Your task to perform on an android device: Empty the shopping cart on amazon.com. Add logitech g933 to the cart on amazon.com, then select checkout. Image 0: 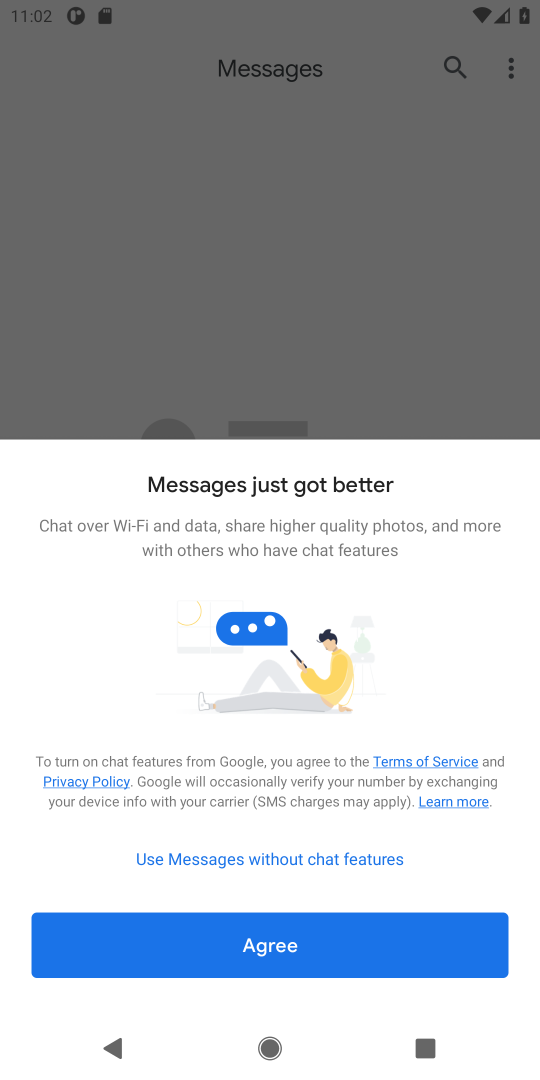
Step 0: press home button
Your task to perform on an android device: Empty the shopping cart on amazon.com. Add logitech g933 to the cart on amazon.com, then select checkout. Image 1: 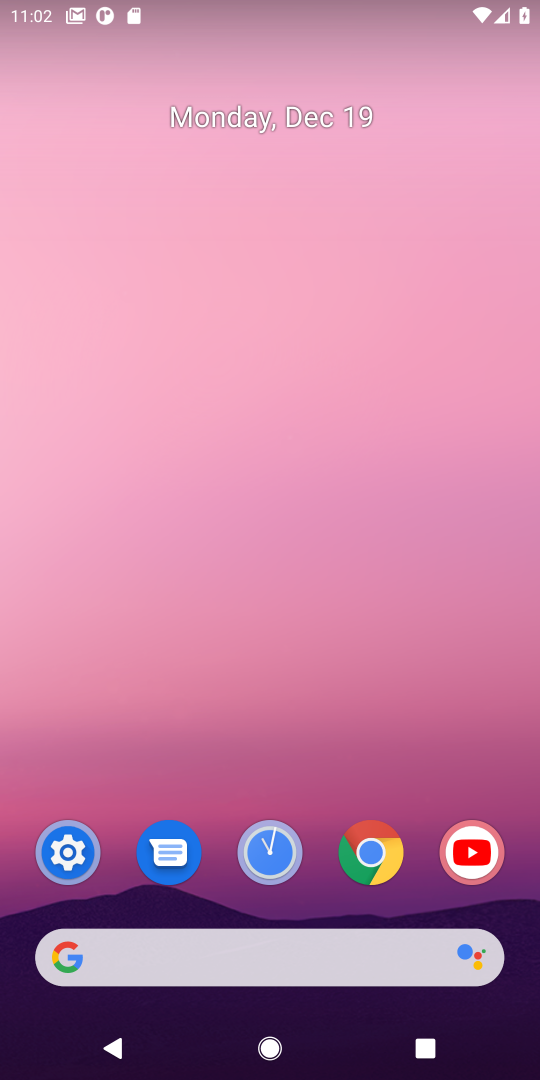
Step 1: click (378, 864)
Your task to perform on an android device: Empty the shopping cart on amazon.com. Add logitech g933 to the cart on amazon.com, then select checkout. Image 2: 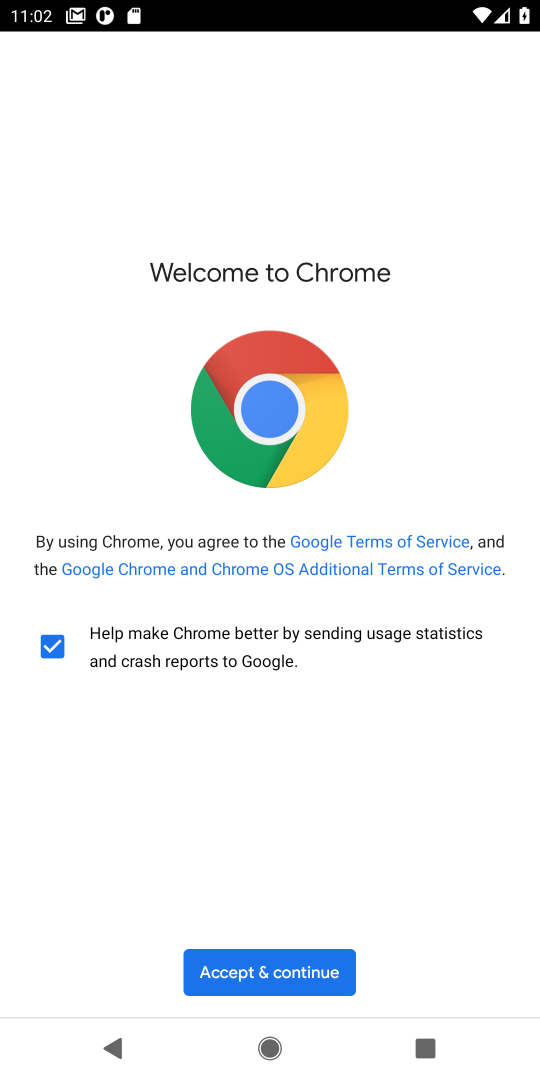
Step 2: click (235, 979)
Your task to perform on an android device: Empty the shopping cart on amazon.com. Add logitech g933 to the cart on amazon.com, then select checkout. Image 3: 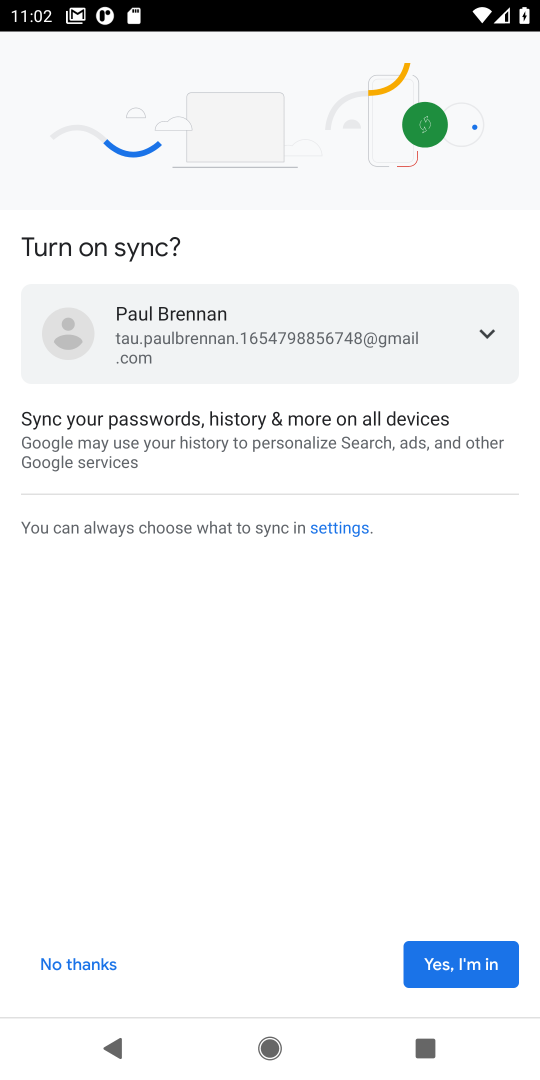
Step 3: click (72, 963)
Your task to perform on an android device: Empty the shopping cart on amazon.com. Add logitech g933 to the cart on amazon.com, then select checkout. Image 4: 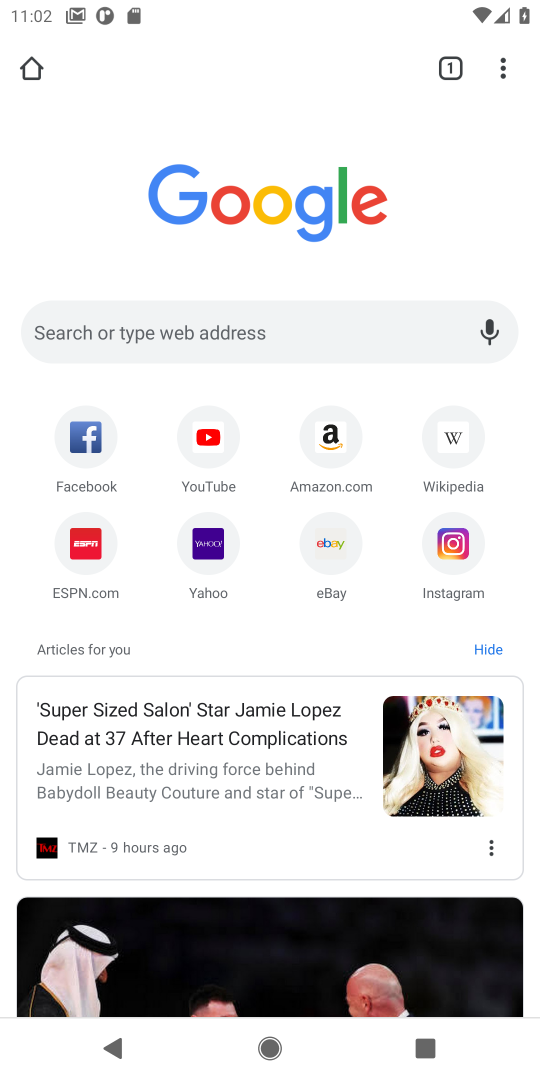
Step 4: click (333, 463)
Your task to perform on an android device: Empty the shopping cart on amazon.com. Add logitech g933 to the cart on amazon.com, then select checkout. Image 5: 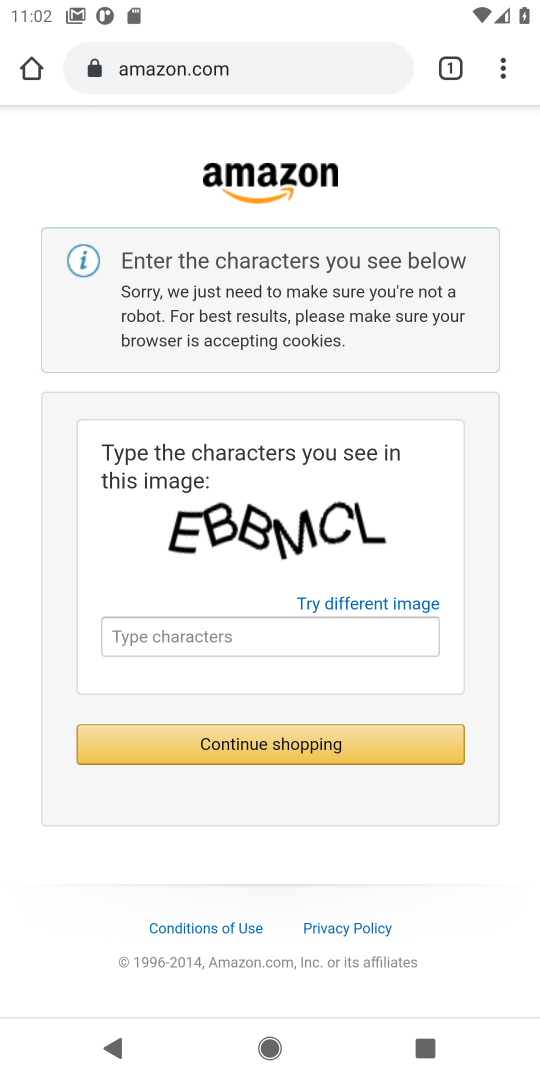
Step 5: click (168, 642)
Your task to perform on an android device: Empty the shopping cart on amazon.com. Add logitech g933 to the cart on amazon.com, then select checkout. Image 6: 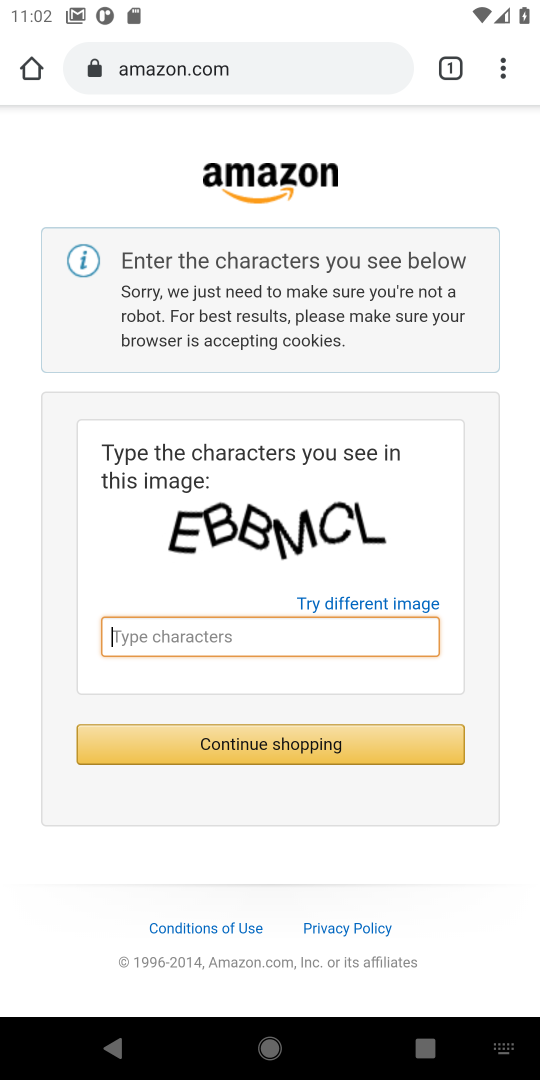
Step 6: type "EBBMCL"
Your task to perform on an android device: Empty the shopping cart on amazon.com. Add logitech g933 to the cart on amazon.com, then select checkout. Image 7: 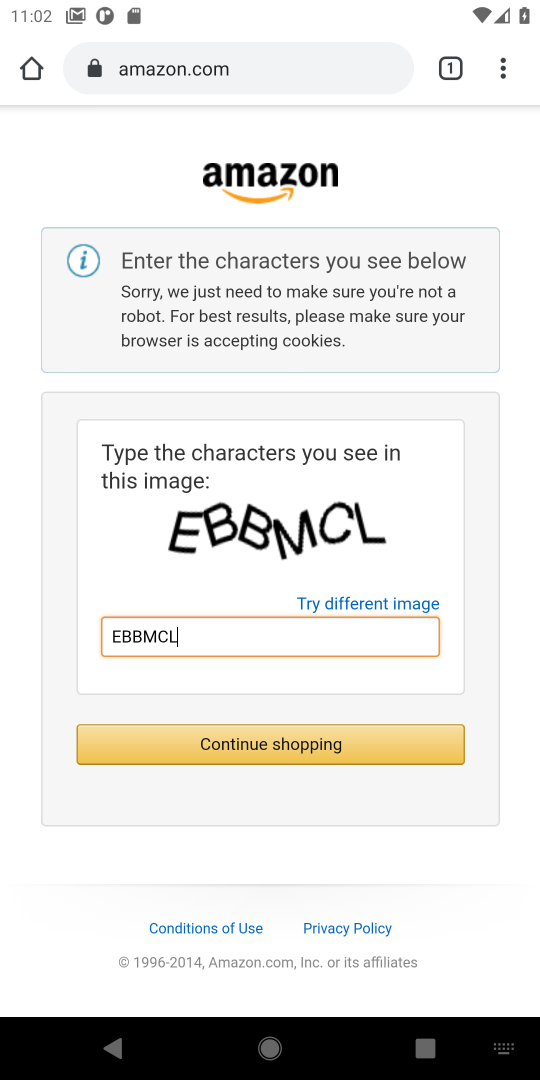
Step 7: click (272, 739)
Your task to perform on an android device: Empty the shopping cart on amazon.com. Add logitech g933 to the cart on amazon.com, then select checkout. Image 8: 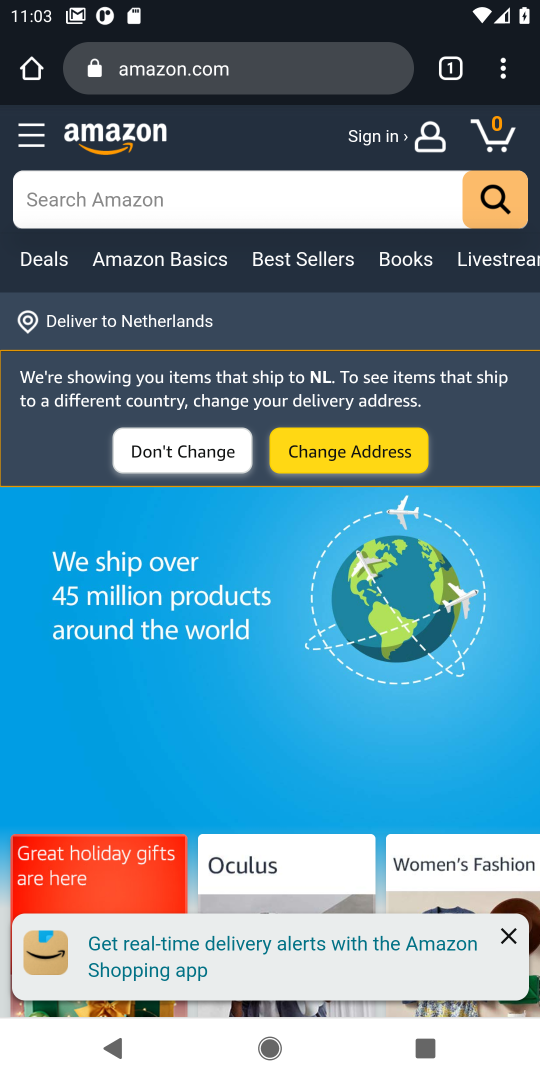
Step 8: click (499, 139)
Your task to perform on an android device: Empty the shopping cart on amazon.com. Add logitech g933 to the cart on amazon.com, then select checkout. Image 9: 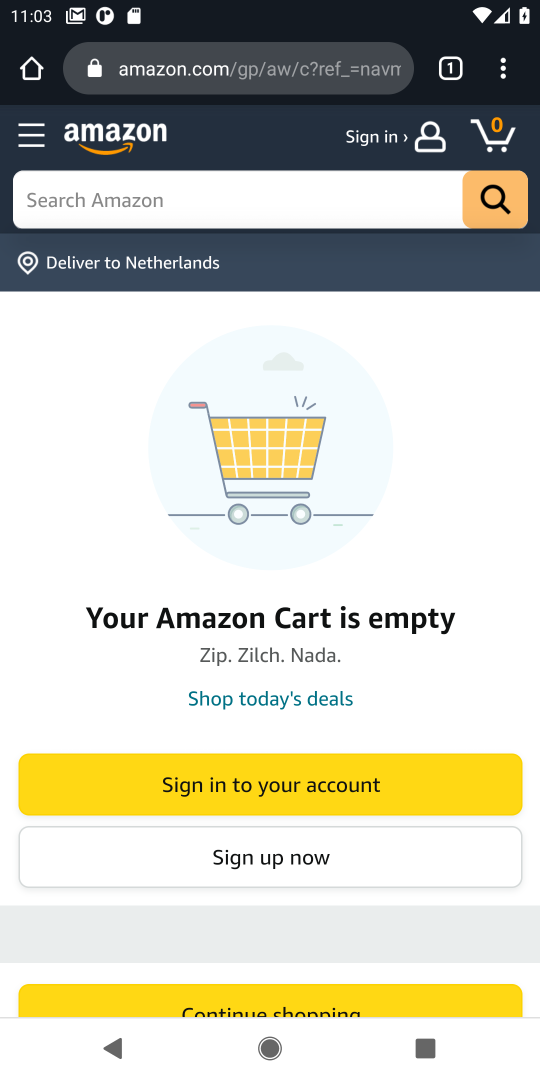
Step 9: click (72, 197)
Your task to perform on an android device: Empty the shopping cart on amazon.com. Add logitech g933 to the cart on amazon.com, then select checkout. Image 10: 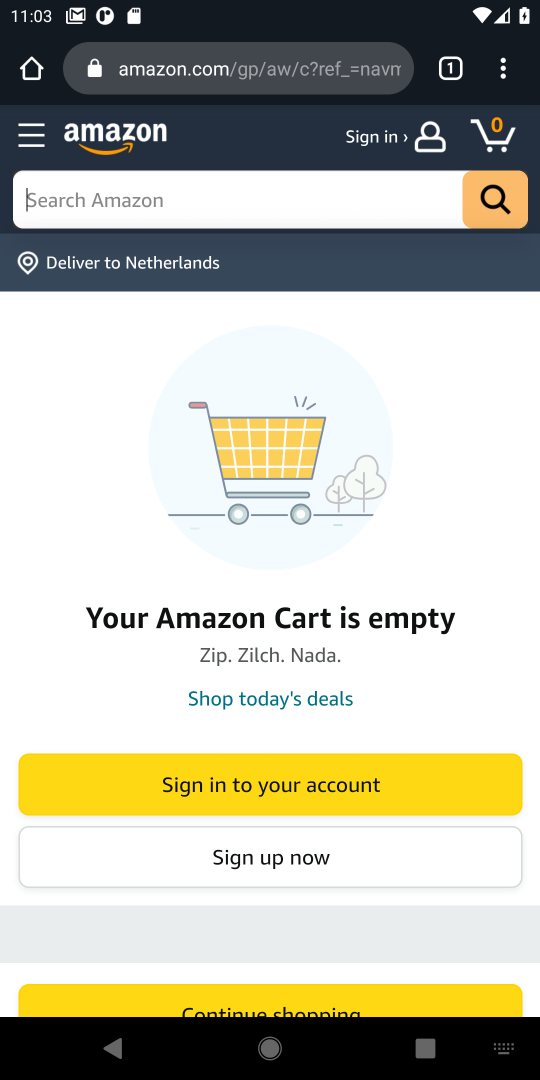
Step 10: type "logitech g933"
Your task to perform on an android device: Empty the shopping cart on amazon.com. Add logitech g933 to the cart on amazon.com, then select checkout. Image 11: 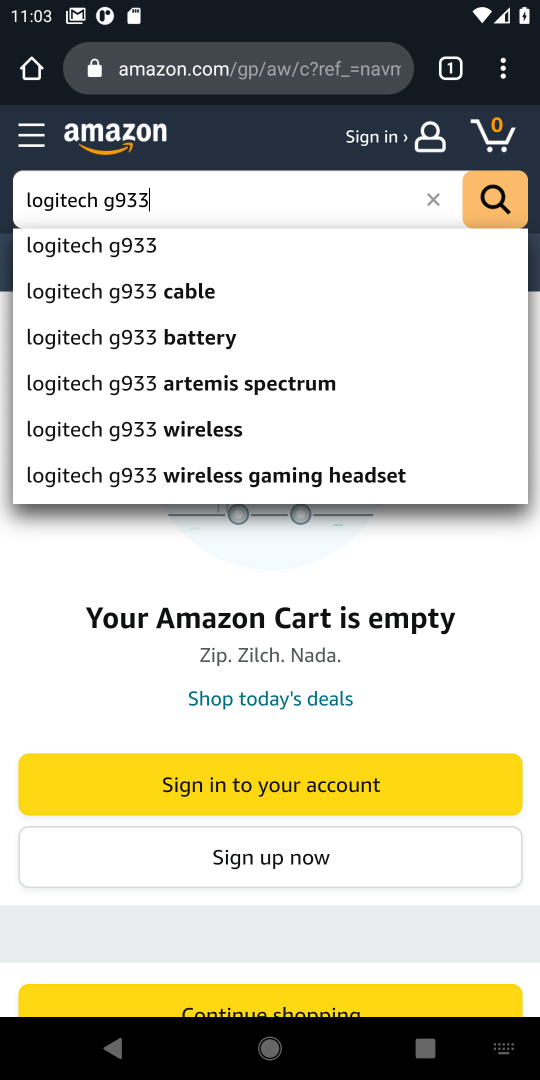
Step 11: click (114, 248)
Your task to perform on an android device: Empty the shopping cart on amazon.com. Add logitech g933 to the cart on amazon.com, then select checkout. Image 12: 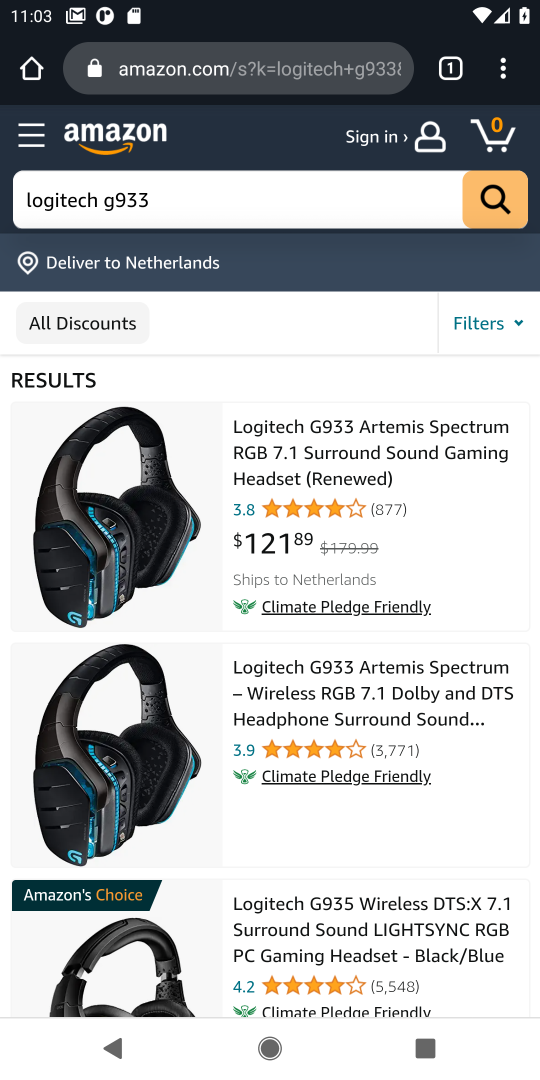
Step 12: click (277, 476)
Your task to perform on an android device: Empty the shopping cart on amazon.com. Add logitech g933 to the cart on amazon.com, then select checkout. Image 13: 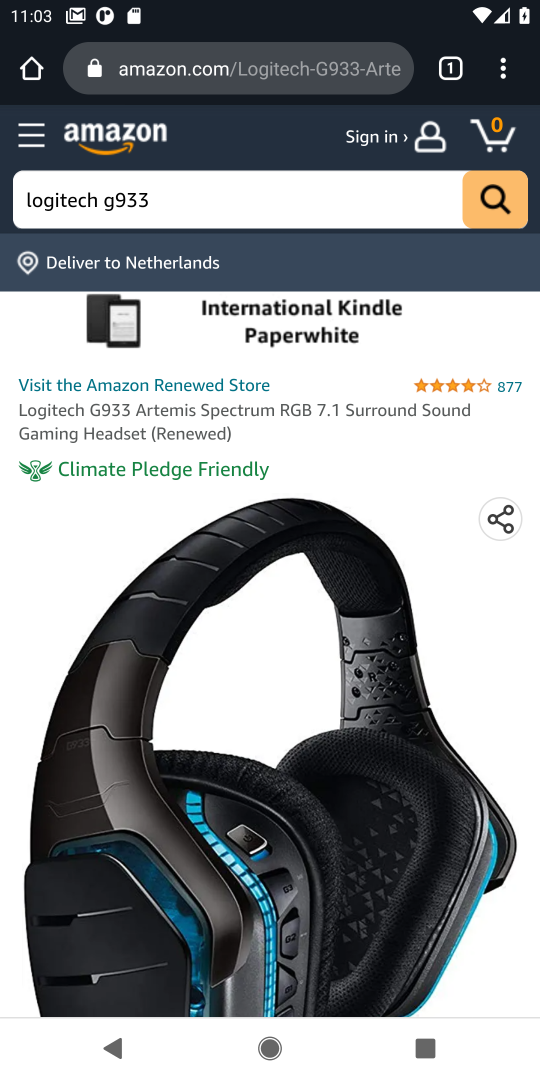
Step 13: drag from (248, 793) to (240, 263)
Your task to perform on an android device: Empty the shopping cart on amazon.com. Add logitech g933 to the cart on amazon.com, then select checkout. Image 14: 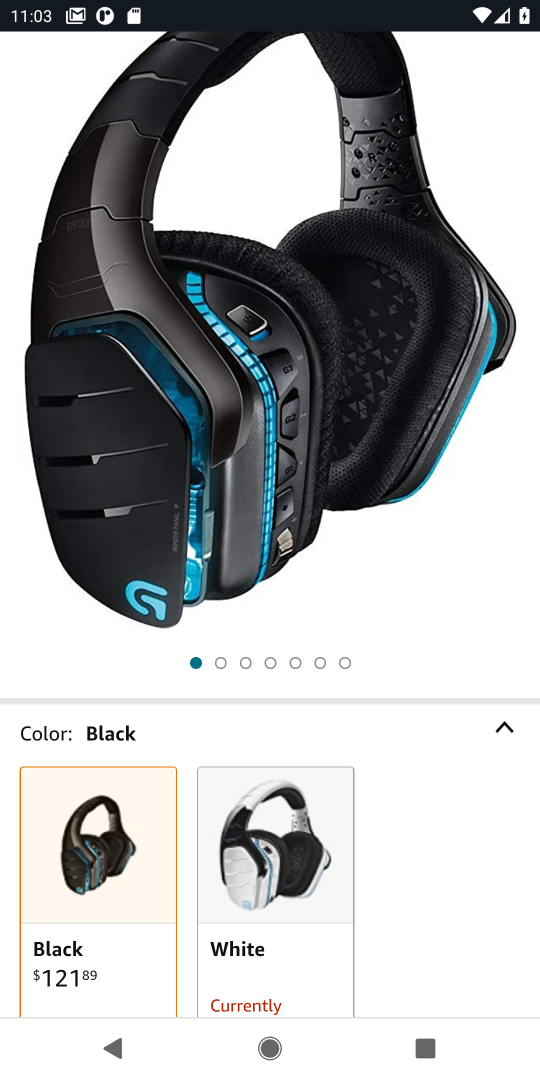
Step 14: drag from (249, 568) to (240, 318)
Your task to perform on an android device: Empty the shopping cart on amazon.com. Add logitech g933 to the cart on amazon.com, then select checkout. Image 15: 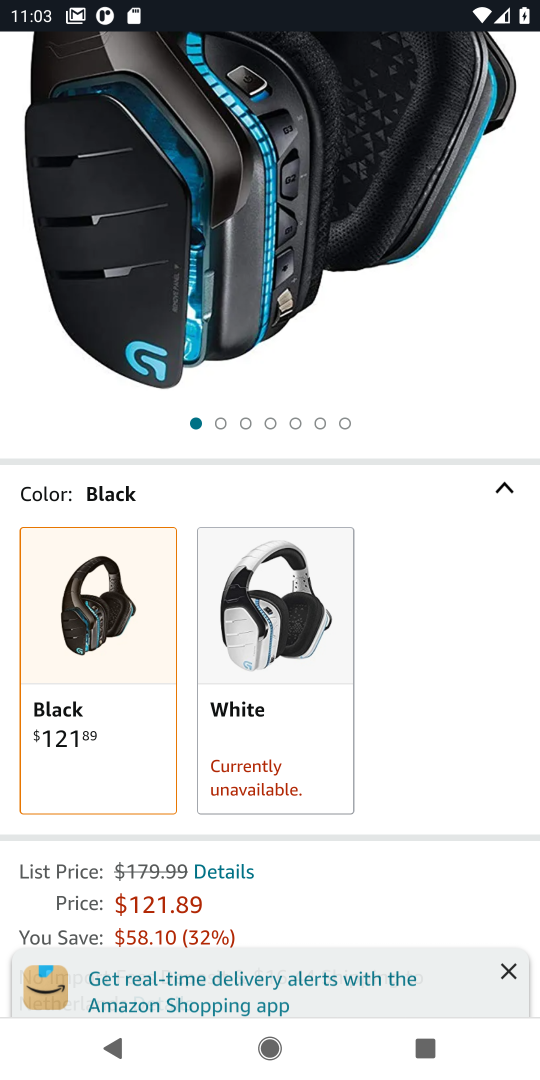
Step 15: drag from (293, 778) to (267, 362)
Your task to perform on an android device: Empty the shopping cart on amazon.com. Add logitech g933 to the cart on amazon.com, then select checkout. Image 16: 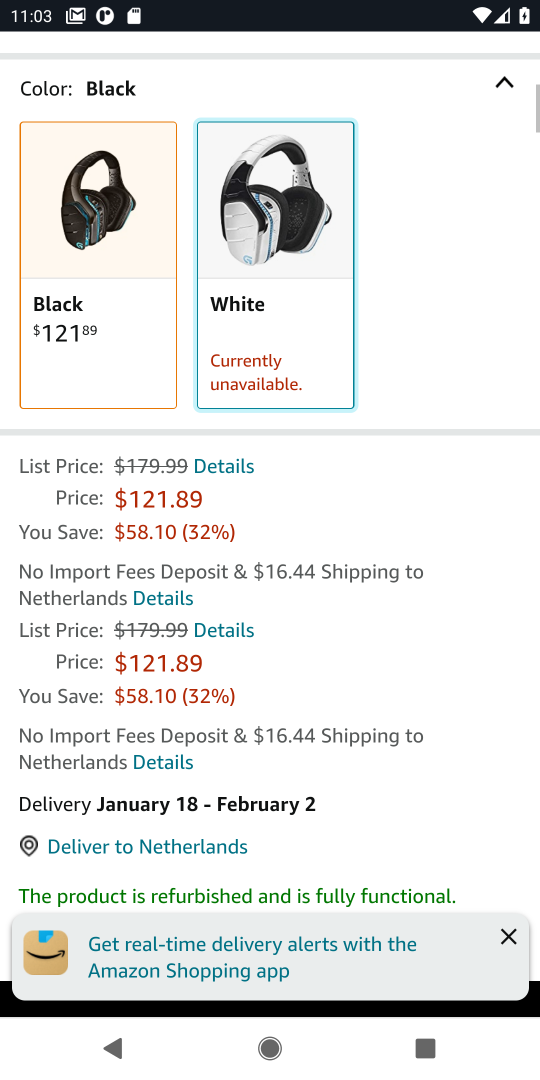
Step 16: drag from (297, 738) to (287, 315)
Your task to perform on an android device: Empty the shopping cart on amazon.com. Add logitech g933 to the cart on amazon.com, then select checkout. Image 17: 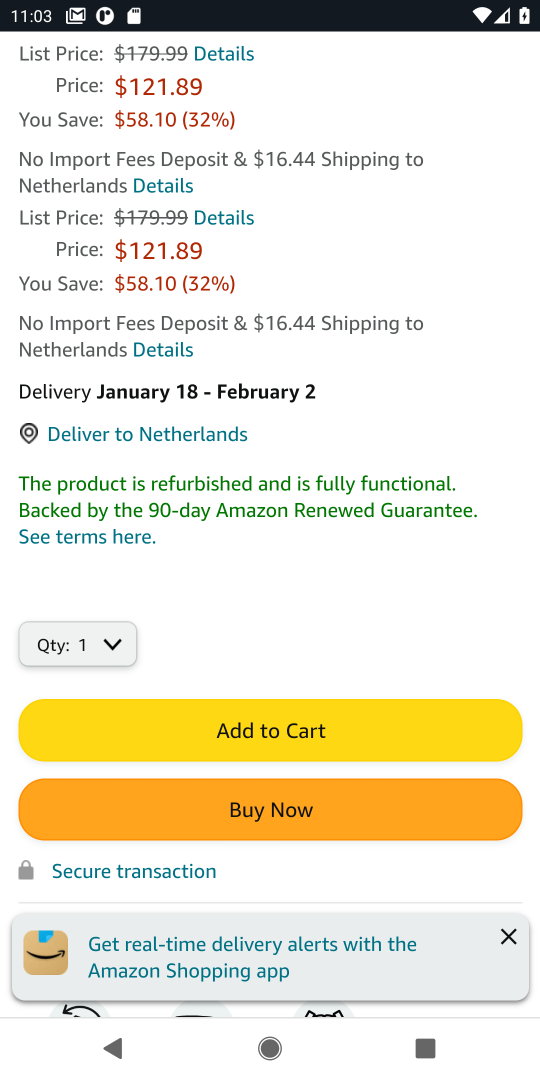
Step 17: click (243, 736)
Your task to perform on an android device: Empty the shopping cart on amazon.com. Add logitech g933 to the cart on amazon.com, then select checkout. Image 18: 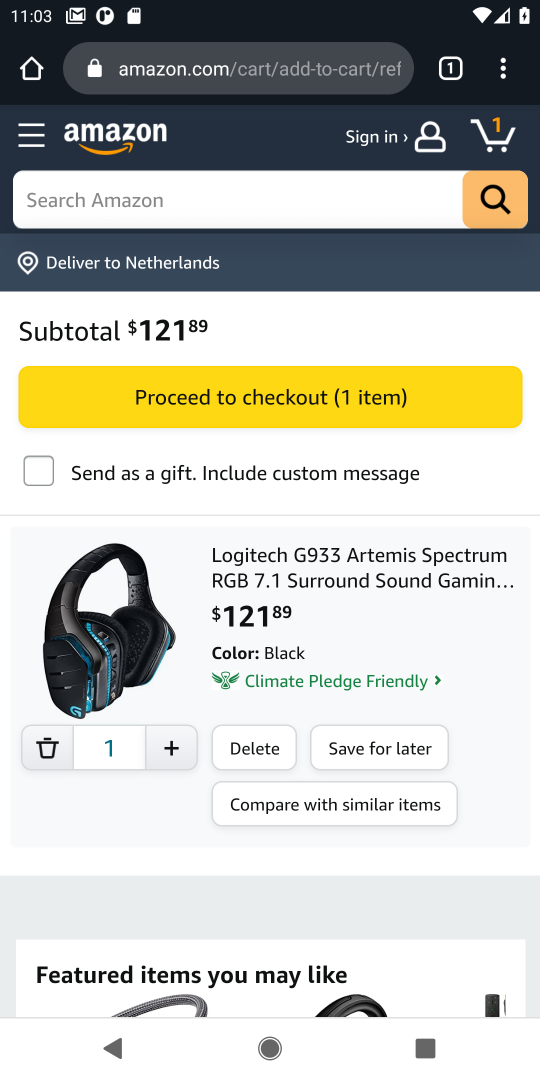
Step 18: click (237, 399)
Your task to perform on an android device: Empty the shopping cart on amazon.com. Add logitech g933 to the cart on amazon.com, then select checkout. Image 19: 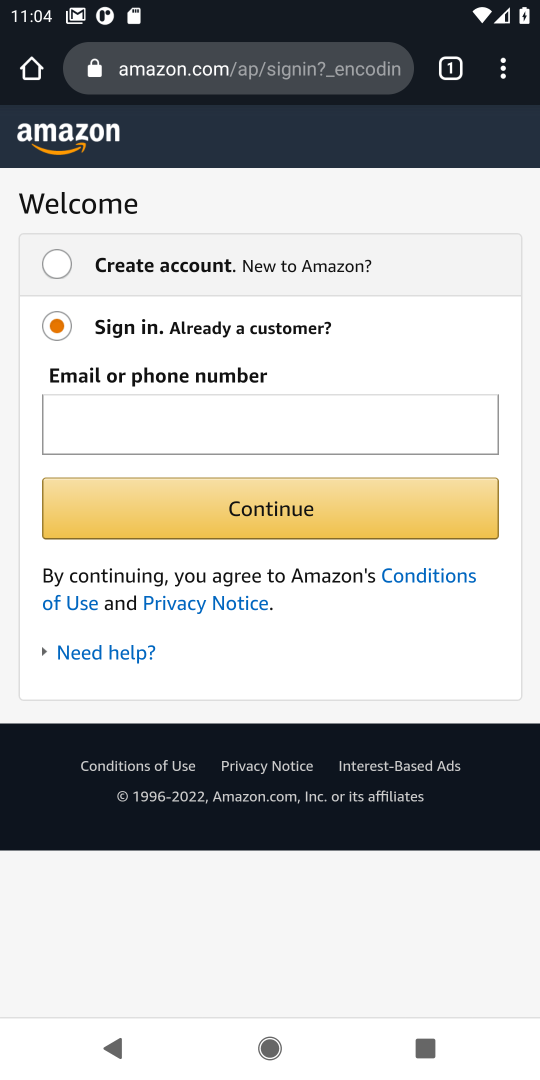
Step 19: task complete